Your task to perform on an android device: Go to Yahoo.com Image 0: 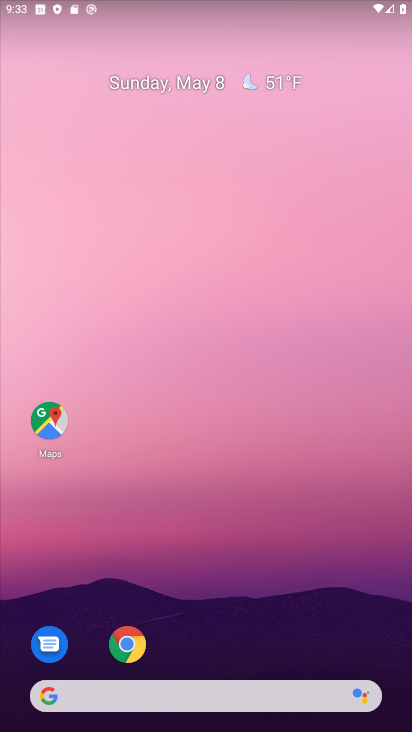
Step 0: drag from (195, 667) to (222, 195)
Your task to perform on an android device: Go to Yahoo.com Image 1: 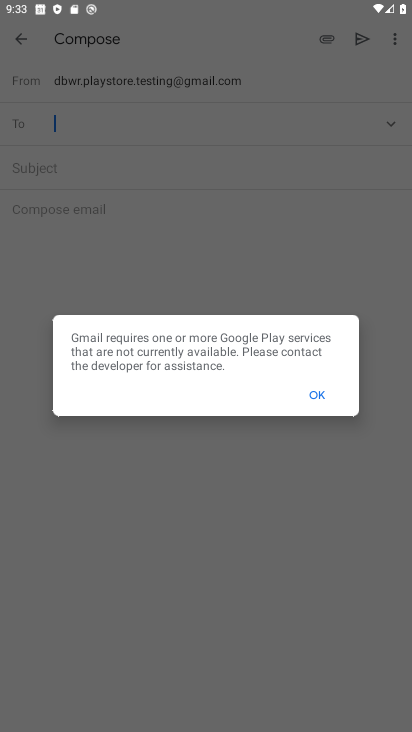
Step 1: press home button
Your task to perform on an android device: Go to Yahoo.com Image 2: 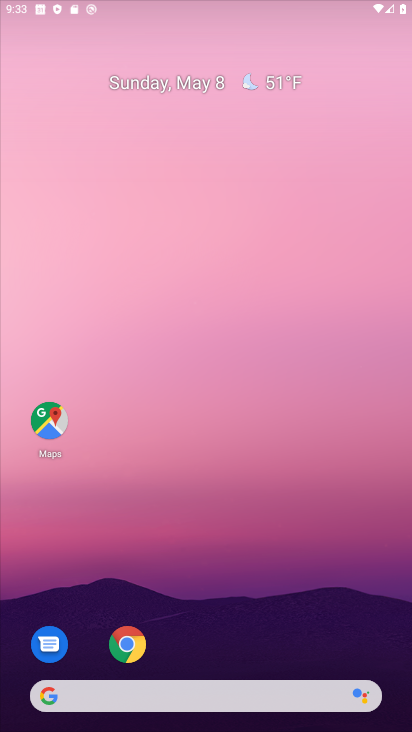
Step 2: drag from (216, 572) to (264, 76)
Your task to perform on an android device: Go to Yahoo.com Image 3: 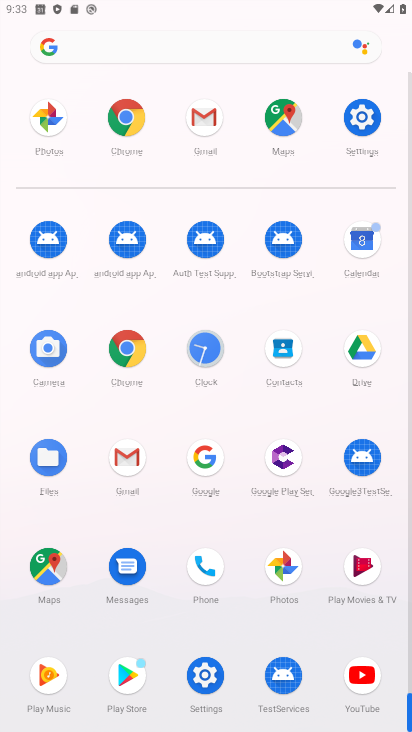
Step 3: click (123, 119)
Your task to perform on an android device: Go to Yahoo.com Image 4: 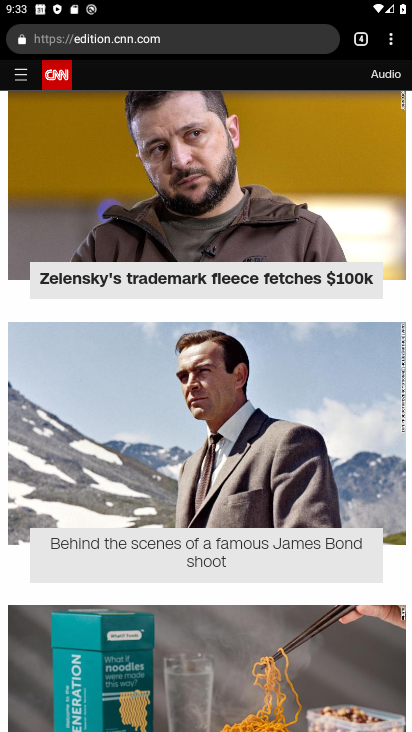
Step 4: drag from (390, 42) to (102, 32)
Your task to perform on an android device: Go to Yahoo.com Image 5: 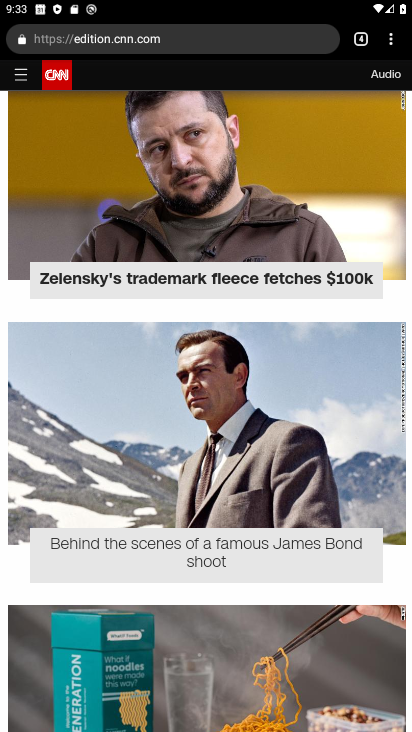
Step 5: click (117, 31)
Your task to perform on an android device: Go to Yahoo.com Image 6: 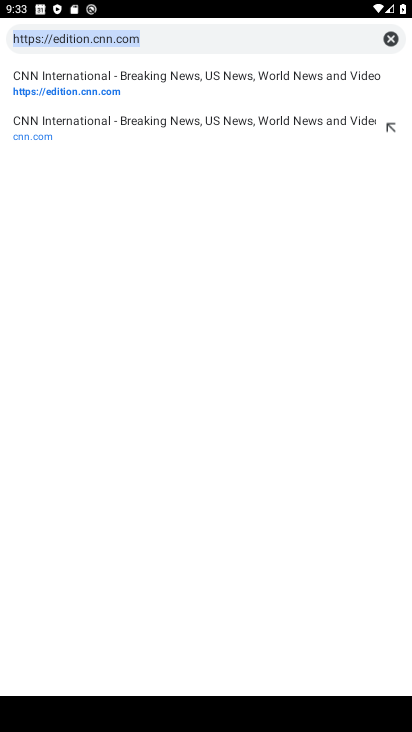
Step 6: click (390, 35)
Your task to perform on an android device: Go to Yahoo.com Image 7: 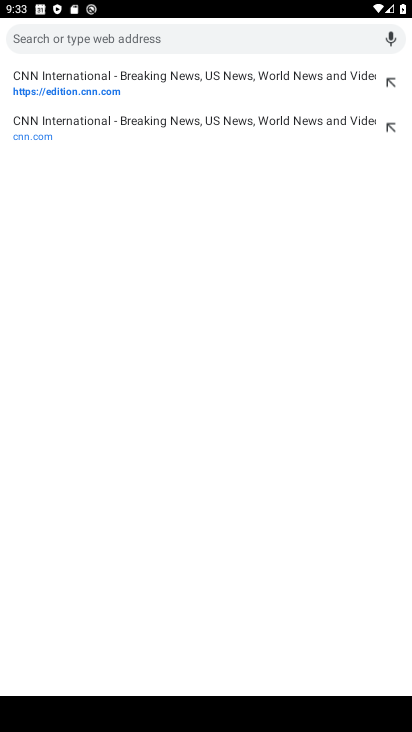
Step 7: click (188, 42)
Your task to perform on an android device: Go to Yahoo.com Image 8: 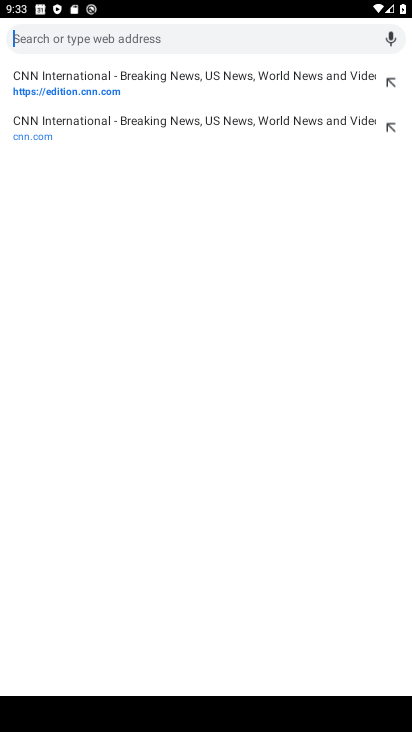
Step 8: type "yahoo"
Your task to perform on an android device: Go to Yahoo.com Image 9: 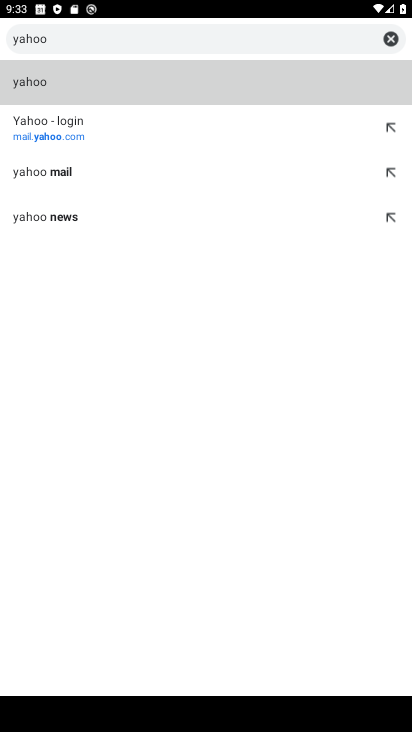
Step 9: click (50, 77)
Your task to perform on an android device: Go to Yahoo.com Image 10: 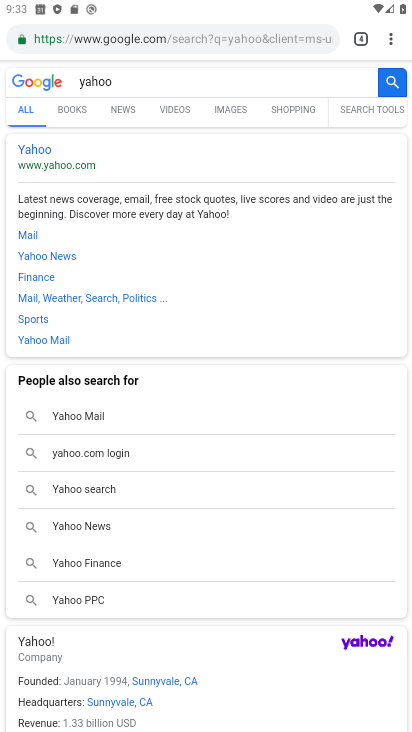
Step 10: click (50, 147)
Your task to perform on an android device: Go to Yahoo.com Image 11: 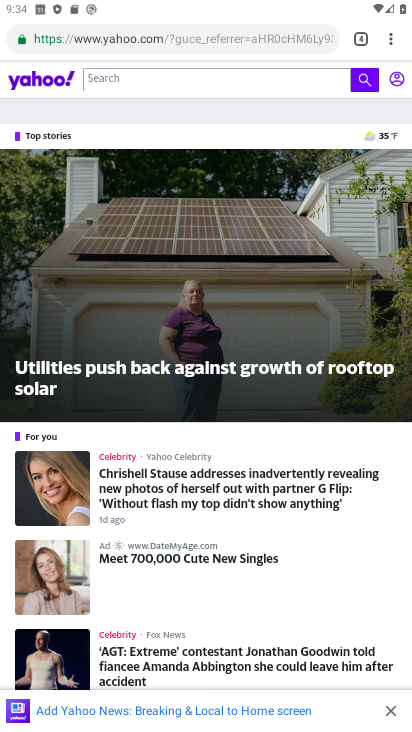
Step 11: task complete